Your task to perform on an android device: delete browsing data in the chrome app Image 0: 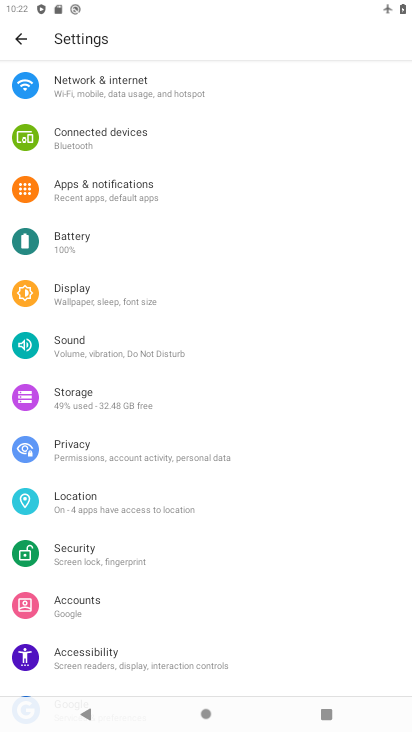
Step 0: press home button
Your task to perform on an android device: delete browsing data in the chrome app Image 1: 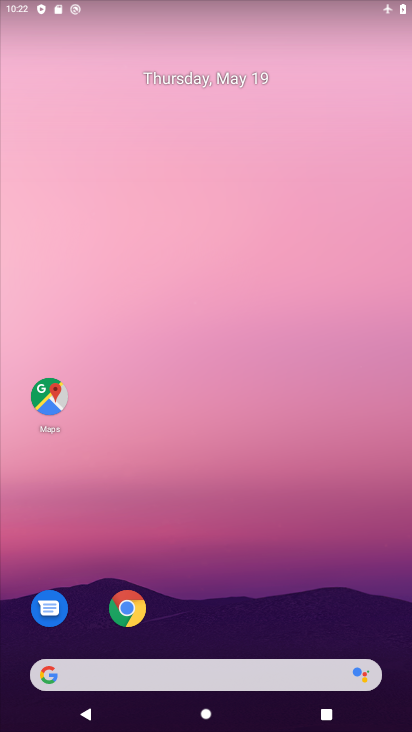
Step 1: click (132, 605)
Your task to perform on an android device: delete browsing data in the chrome app Image 2: 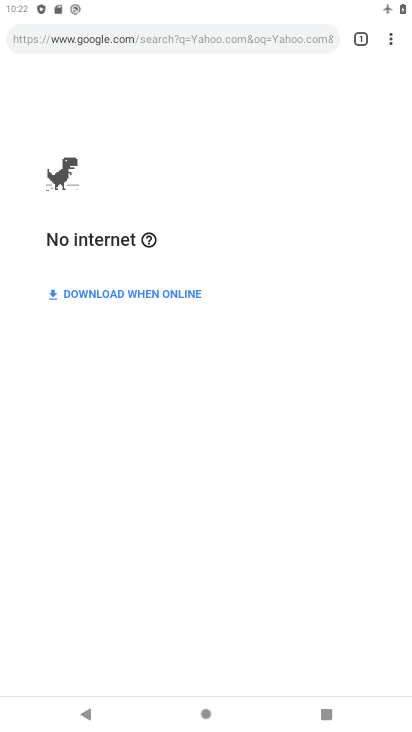
Step 2: task complete